Your task to perform on an android device: Open notification settings Image 0: 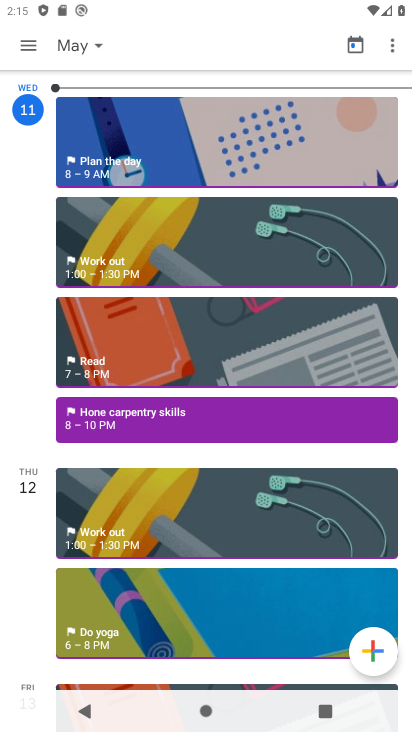
Step 0: press home button
Your task to perform on an android device: Open notification settings Image 1: 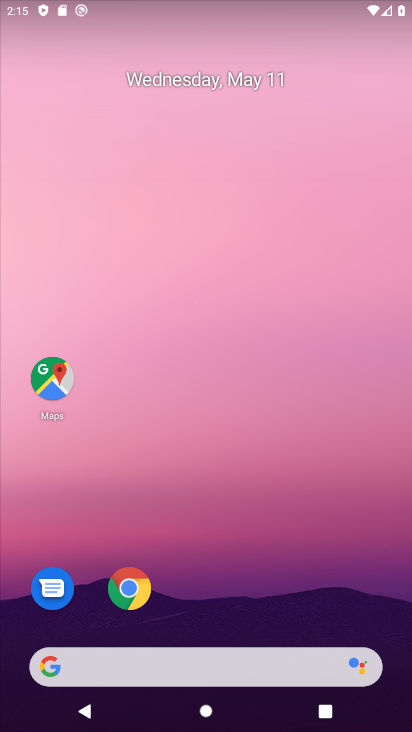
Step 1: drag from (266, 602) to (249, 75)
Your task to perform on an android device: Open notification settings Image 2: 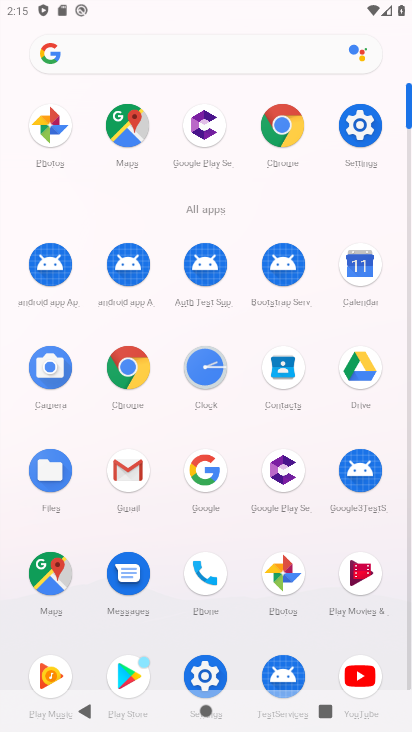
Step 2: click (360, 134)
Your task to perform on an android device: Open notification settings Image 3: 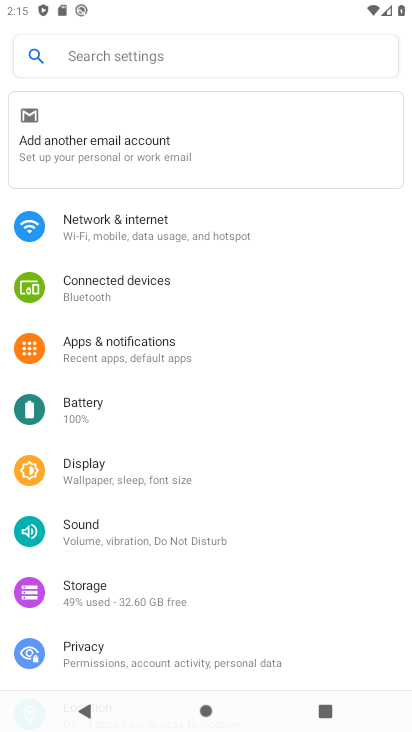
Step 3: drag from (170, 654) to (185, 393)
Your task to perform on an android device: Open notification settings Image 4: 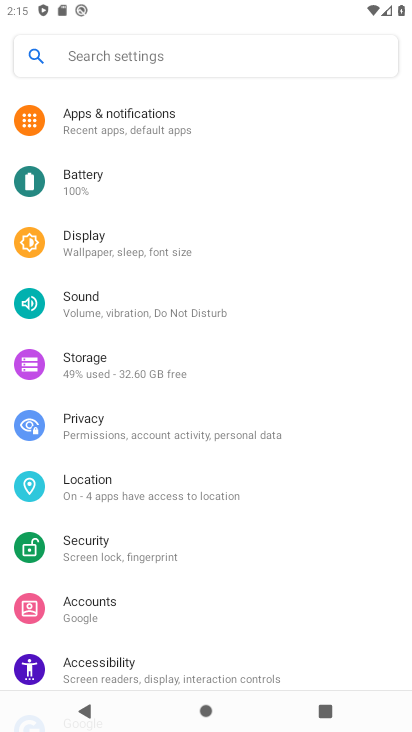
Step 4: click (112, 109)
Your task to perform on an android device: Open notification settings Image 5: 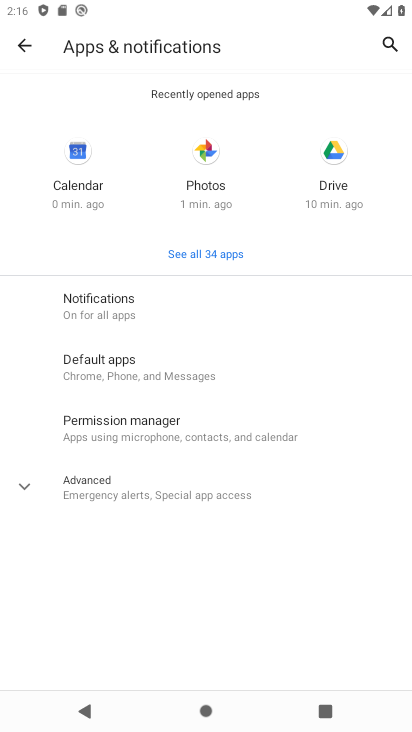
Step 5: click (81, 307)
Your task to perform on an android device: Open notification settings Image 6: 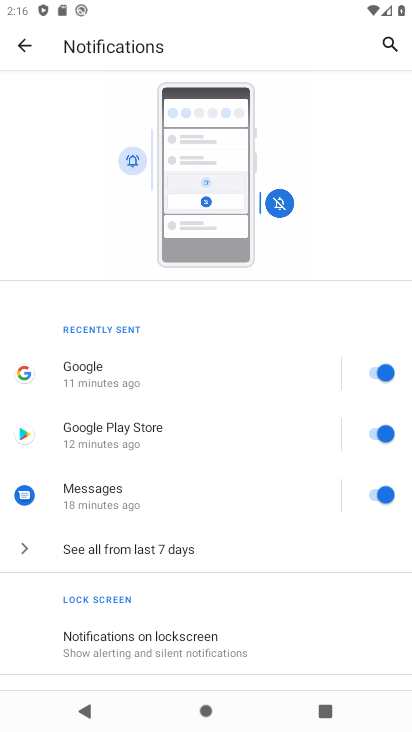
Step 6: task complete